Your task to perform on an android device: turn off improve location accuracy Image 0: 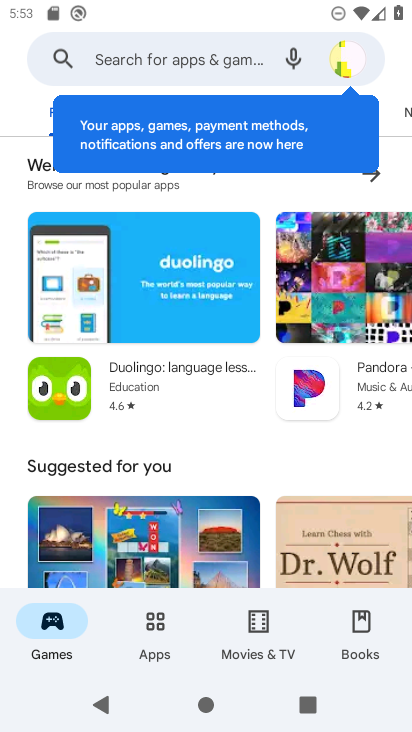
Step 0: press home button
Your task to perform on an android device: turn off improve location accuracy Image 1: 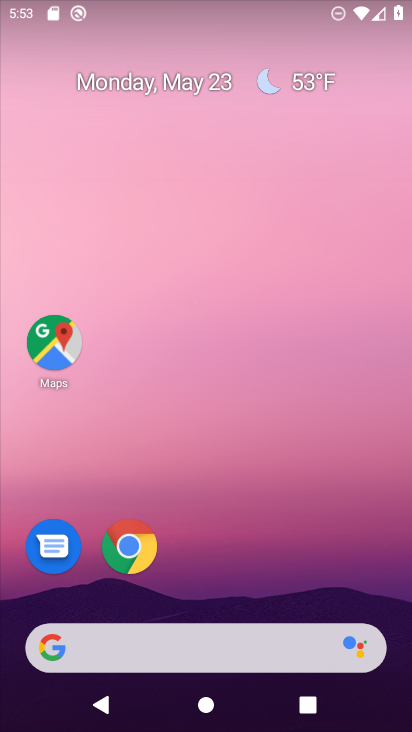
Step 1: drag from (275, 593) to (279, 58)
Your task to perform on an android device: turn off improve location accuracy Image 2: 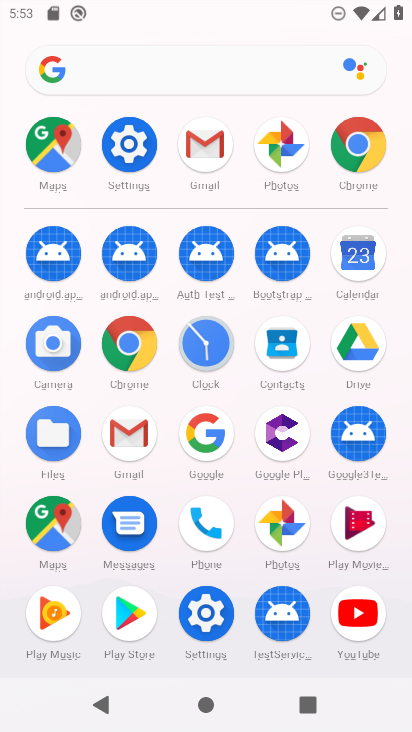
Step 2: click (114, 143)
Your task to perform on an android device: turn off improve location accuracy Image 3: 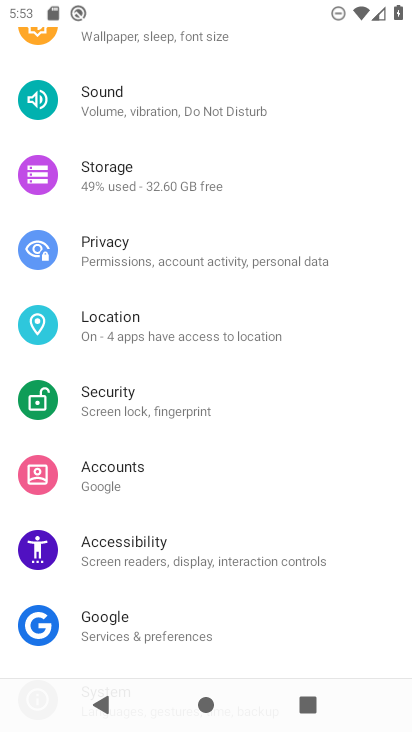
Step 3: drag from (266, 593) to (316, 39)
Your task to perform on an android device: turn off improve location accuracy Image 4: 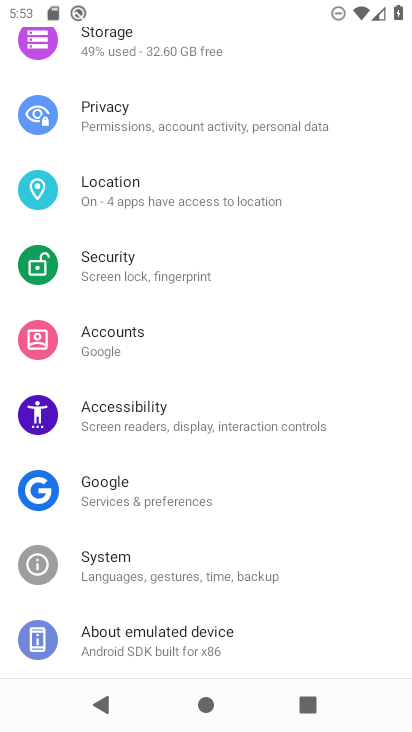
Step 4: click (205, 197)
Your task to perform on an android device: turn off improve location accuracy Image 5: 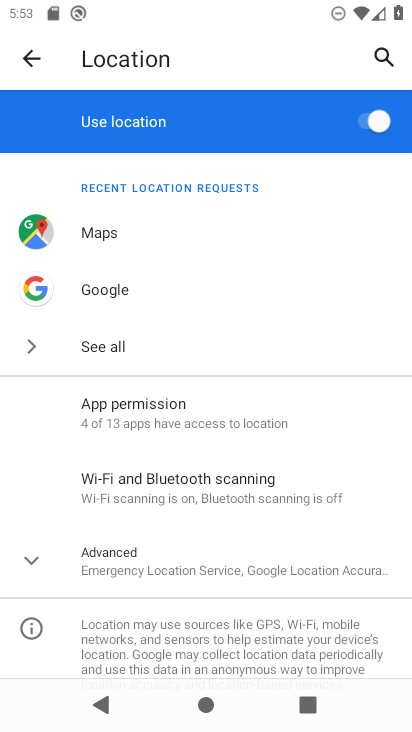
Step 5: click (232, 558)
Your task to perform on an android device: turn off improve location accuracy Image 6: 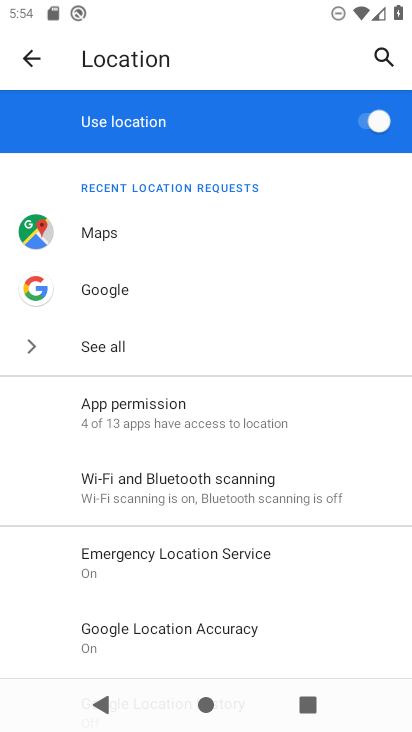
Step 6: drag from (239, 593) to (218, 388)
Your task to perform on an android device: turn off improve location accuracy Image 7: 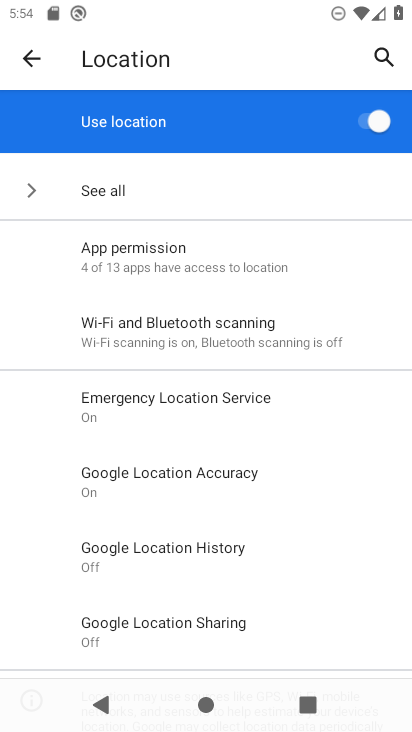
Step 7: click (195, 478)
Your task to perform on an android device: turn off improve location accuracy Image 8: 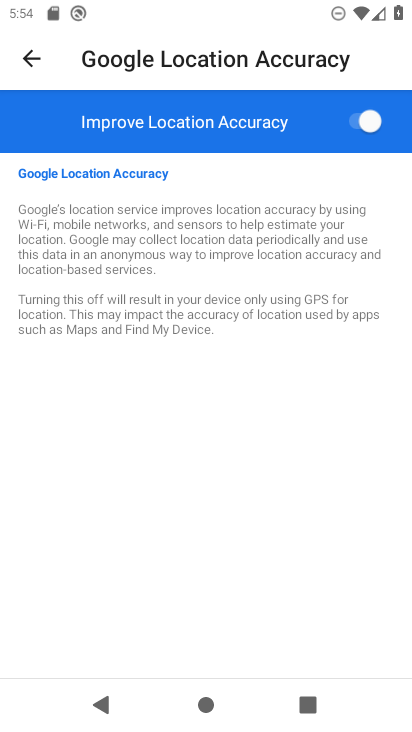
Step 8: click (356, 112)
Your task to perform on an android device: turn off improve location accuracy Image 9: 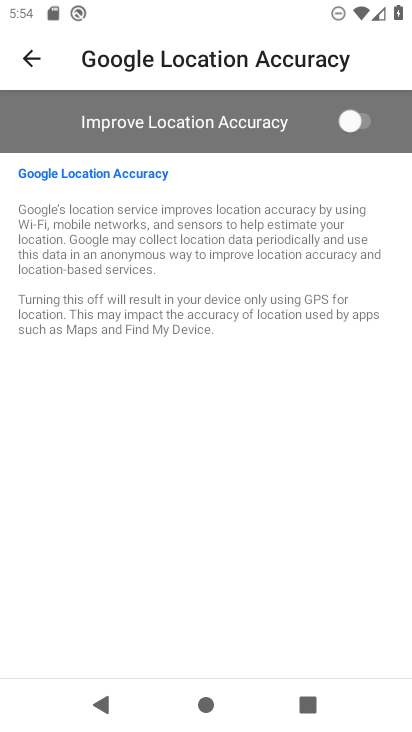
Step 9: task complete